Your task to perform on an android device: Go to CNN.com Image 0: 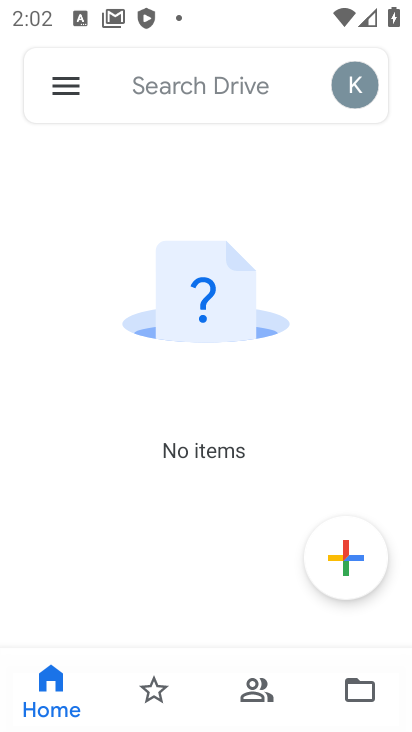
Step 0: press home button
Your task to perform on an android device: Go to CNN.com Image 1: 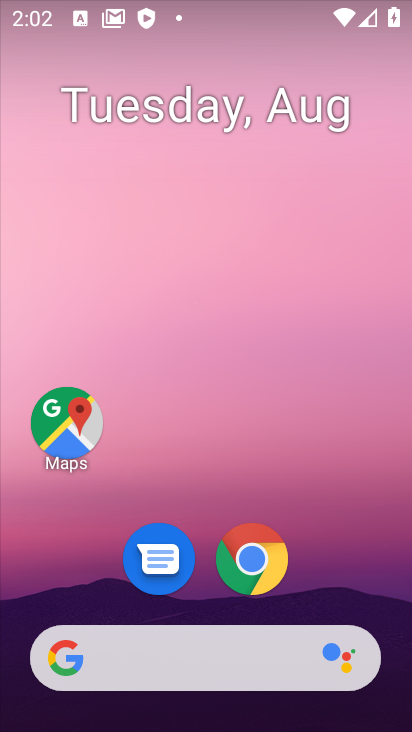
Step 1: click (235, 554)
Your task to perform on an android device: Go to CNN.com Image 2: 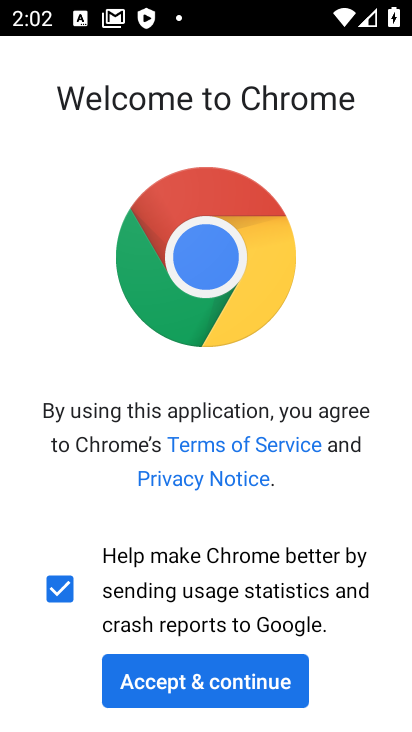
Step 2: click (230, 669)
Your task to perform on an android device: Go to CNN.com Image 3: 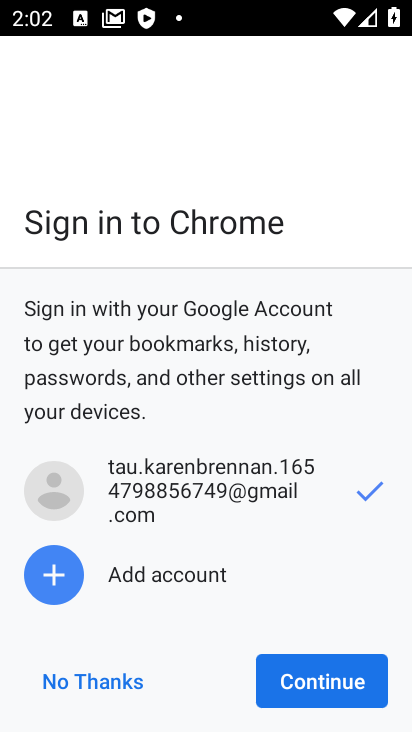
Step 3: click (317, 688)
Your task to perform on an android device: Go to CNN.com Image 4: 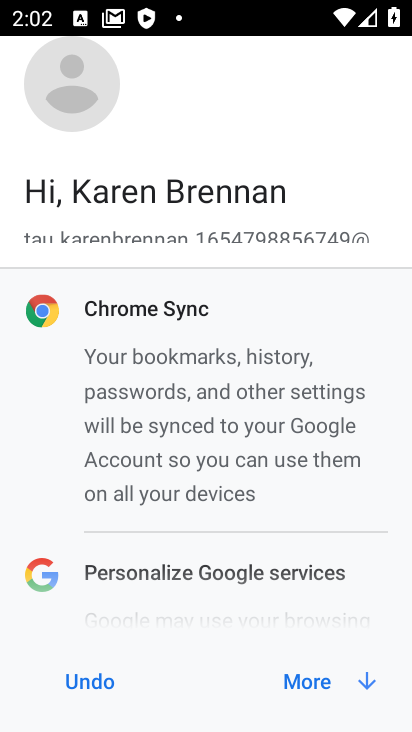
Step 4: click (308, 673)
Your task to perform on an android device: Go to CNN.com Image 5: 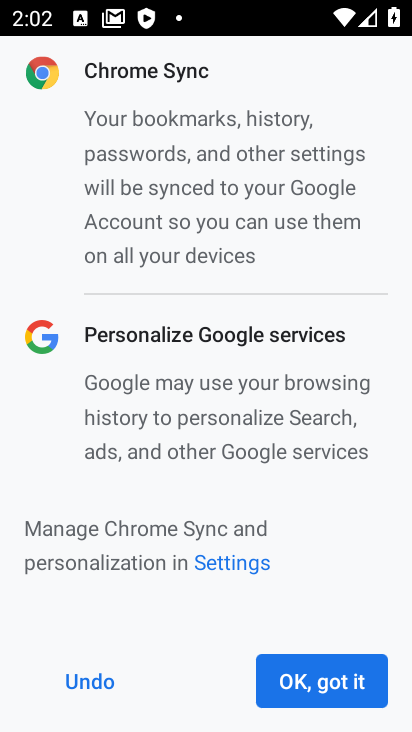
Step 5: click (308, 673)
Your task to perform on an android device: Go to CNN.com Image 6: 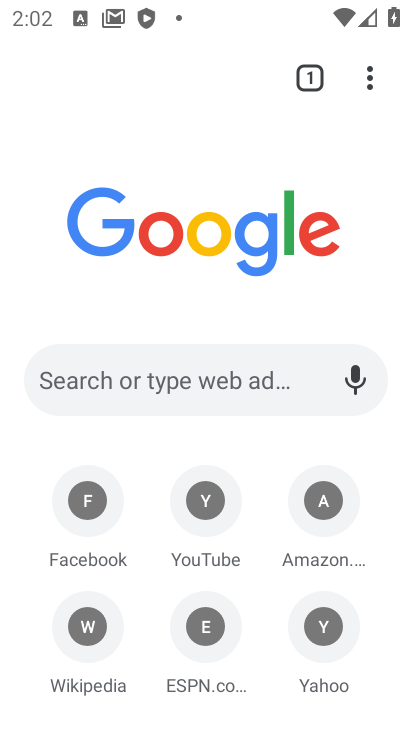
Step 6: click (311, 84)
Your task to perform on an android device: Go to CNN.com Image 7: 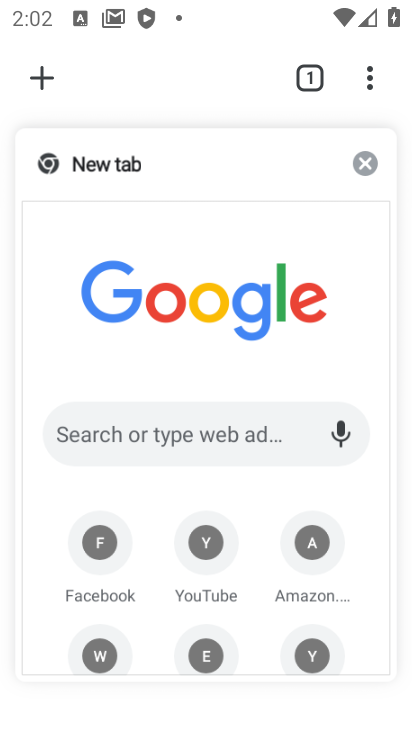
Step 7: click (37, 78)
Your task to perform on an android device: Go to CNN.com Image 8: 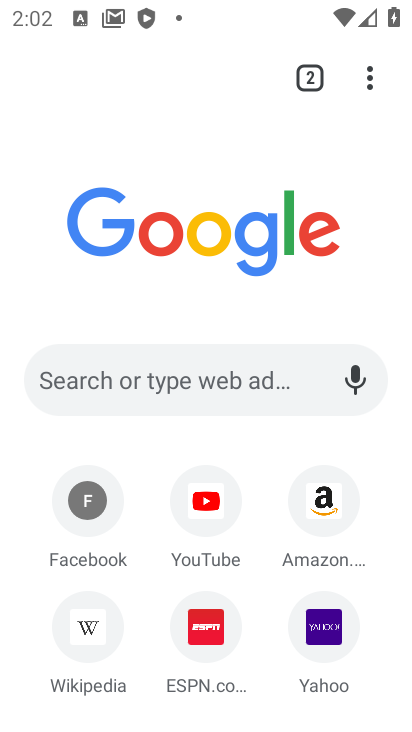
Step 8: click (109, 380)
Your task to perform on an android device: Go to CNN.com Image 9: 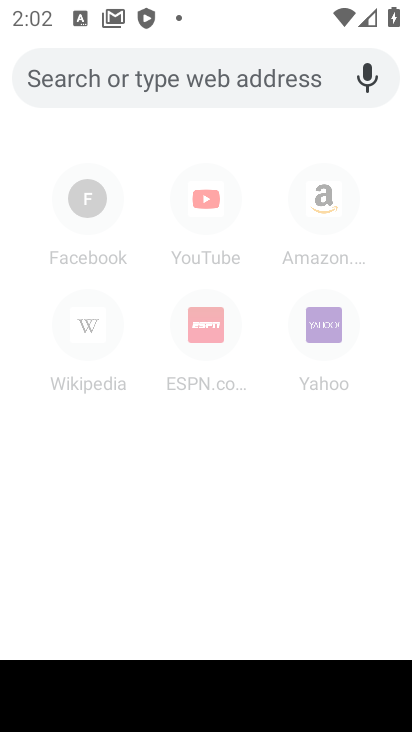
Step 9: type "CNN.com"
Your task to perform on an android device: Go to CNN.com Image 10: 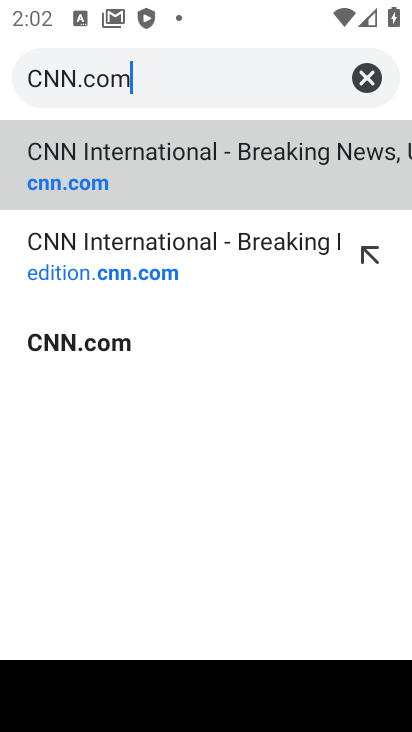
Step 10: type ""
Your task to perform on an android device: Go to CNN.com Image 11: 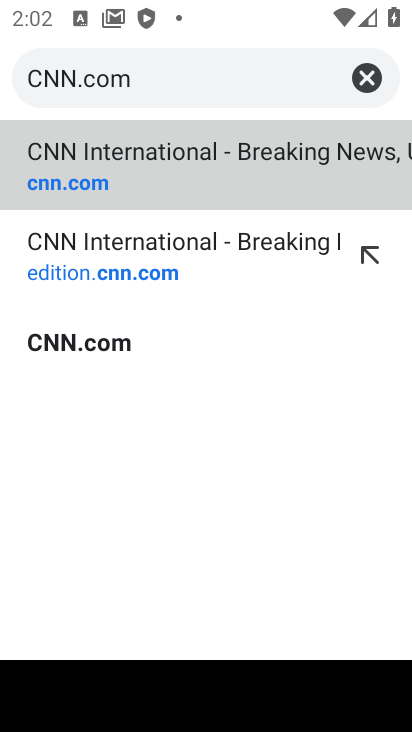
Step 11: click (174, 155)
Your task to perform on an android device: Go to CNN.com Image 12: 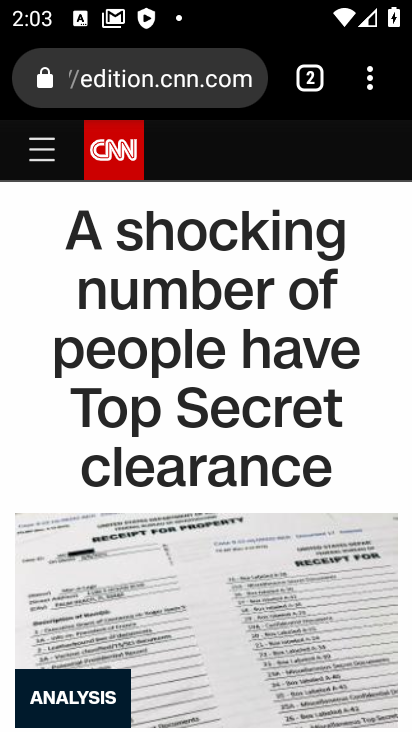
Step 12: task complete